Your task to perform on an android device: What's the weather going to be this weekend? Image 0: 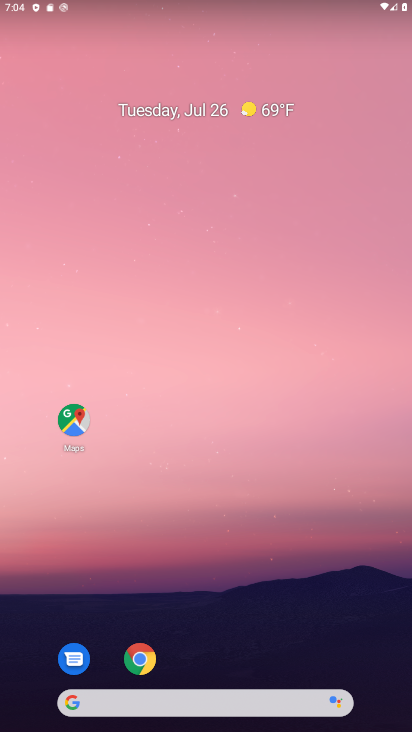
Step 0: click (217, 703)
Your task to perform on an android device: What's the weather going to be this weekend? Image 1: 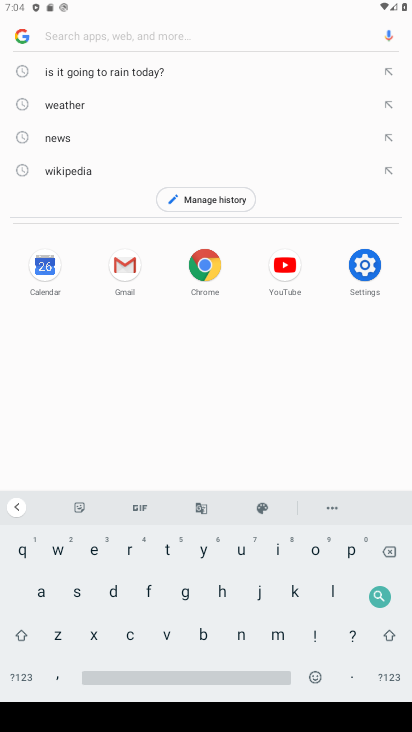
Step 1: click (49, 550)
Your task to perform on an android device: What's the weather going to be this weekend? Image 2: 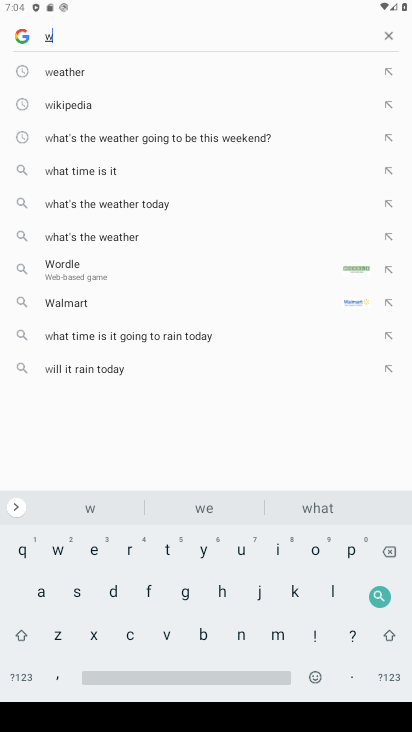
Step 2: click (83, 135)
Your task to perform on an android device: What's the weather going to be this weekend? Image 3: 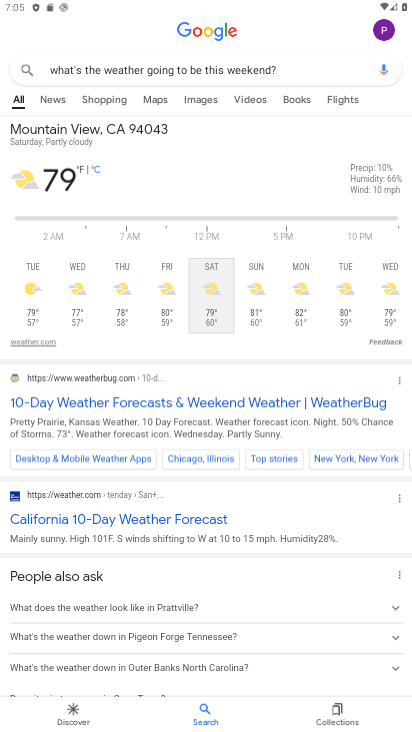
Step 3: task complete